Your task to perform on an android device: See recent photos Image 0: 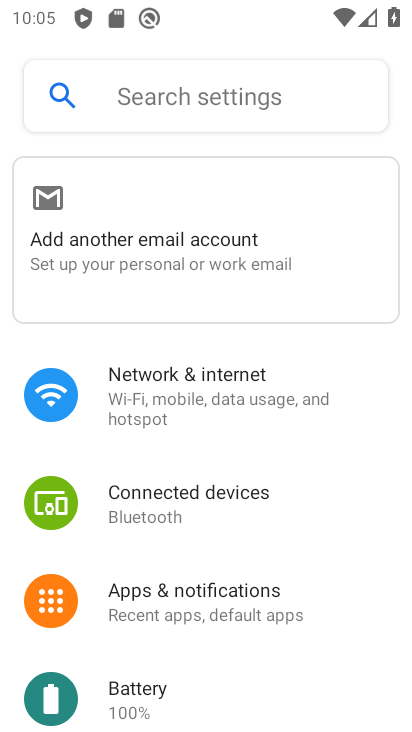
Step 0: press home button
Your task to perform on an android device: See recent photos Image 1: 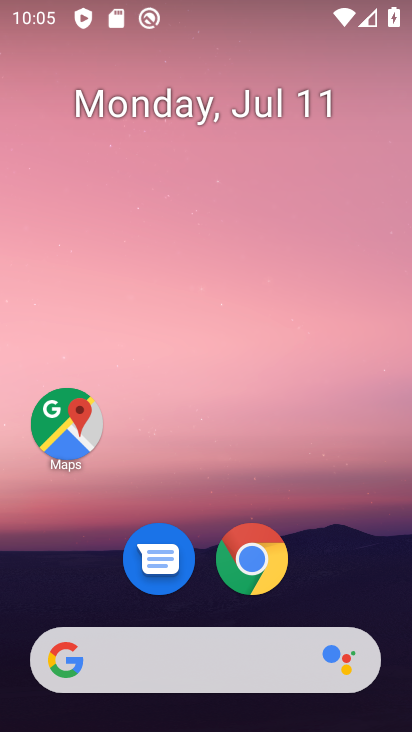
Step 1: drag from (362, 578) to (361, 161)
Your task to perform on an android device: See recent photos Image 2: 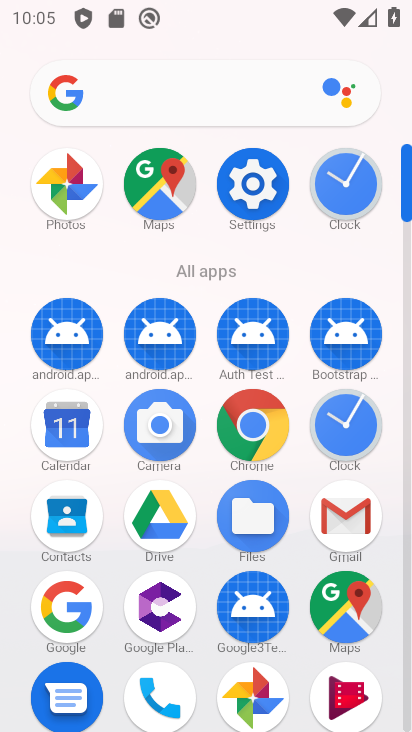
Step 2: drag from (386, 484) to (394, 254)
Your task to perform on an android device: See recent photos Image 3: 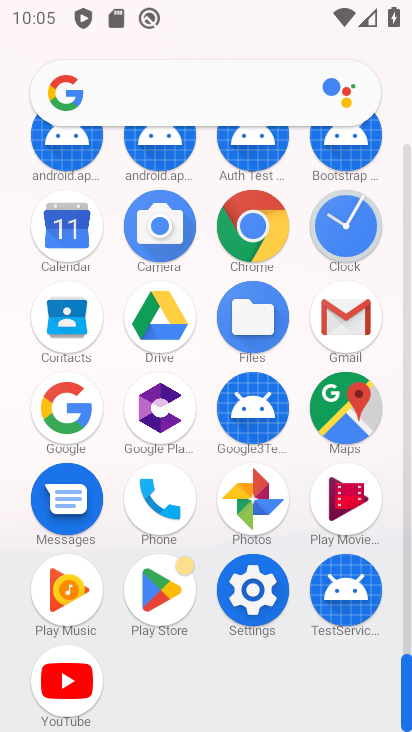
Step 3: click (262, 496)
Your task to perform on an android device: See recent photos Image 4: 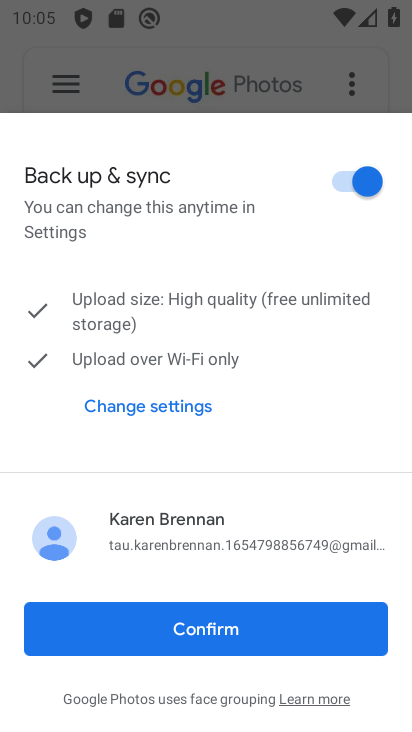
Step 4: click (205, 625)
Your task to perform on an android device: See recent photos Image 5: 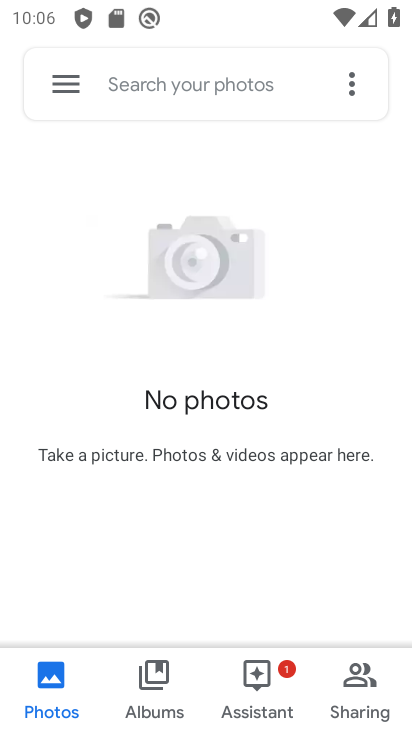
Step 5: task complete